Your task to perform on an android device: Open Yahoo.com Image 0: 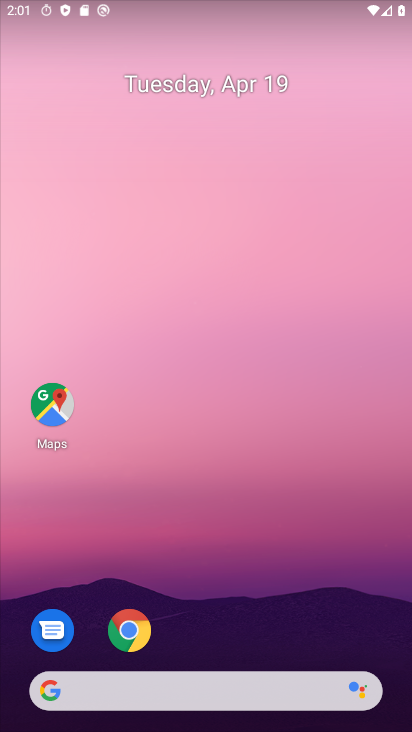
Step 0: click (133, 622)
Your task to perform on an android device: Open Yahoo.com Image 1: 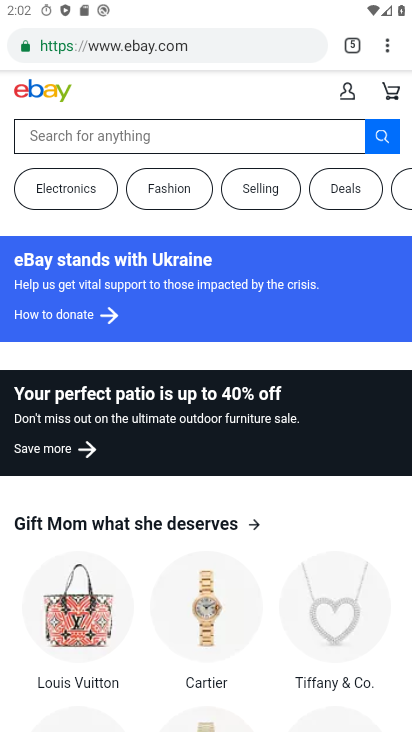
Step 1: click (351, 48)
Your task to perform on an android device: Open Yahoo.com Image 2: 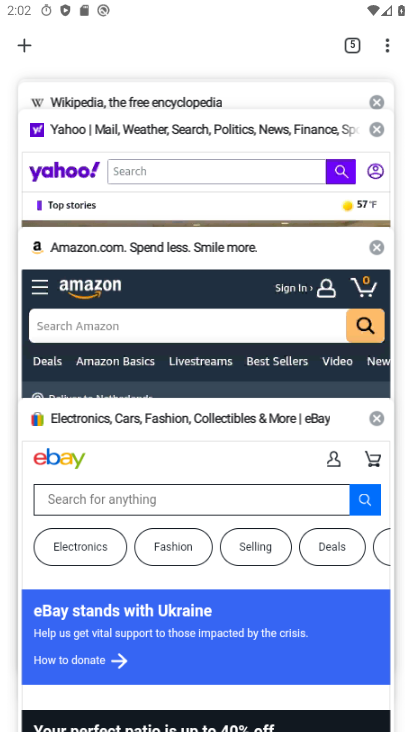
Step 2: click (77, 105)
Your task to perform on an android device: Open Yahoo.com Image 3: 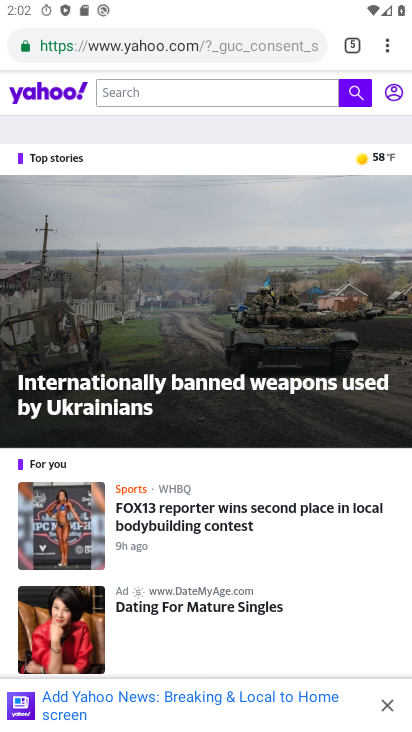
Step 3: task complete